Your task to perform on an android device: open chrome privacy settings Image 0: 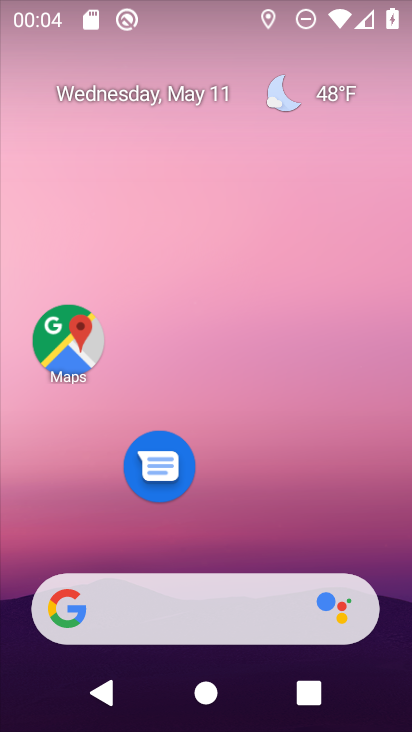
Step 0: drag from (260, 558) to (332, 43)
Your task to perform on an android device: open chrome privacy settings Image 1: 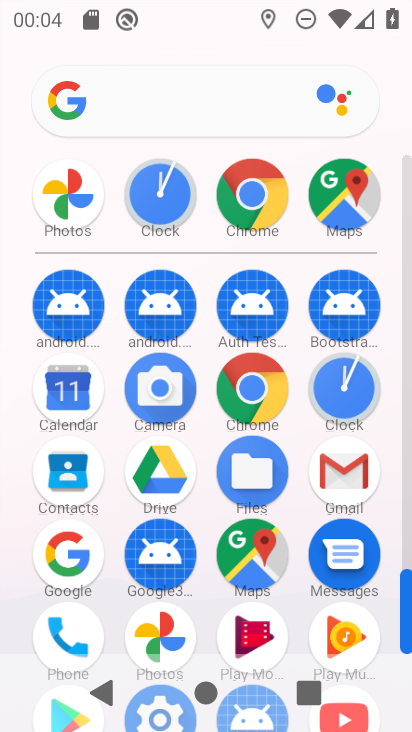
Step 1: click (233, 395)
Your task to perform on an android device: open chrome privacy settings Image 2: 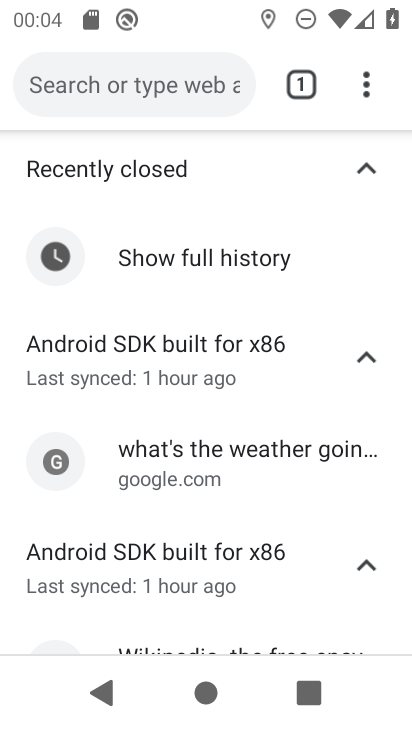
Step 2: click (365, 83)
Your task to perform on an android device: open chrome privacy settings Image 3: 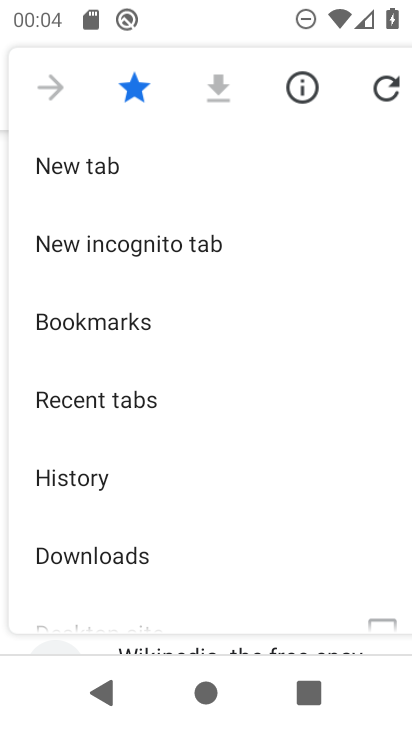
Step 3: drag from (181, 543) to (176, 479)
Your task to perform on an android device: open chrome privacy settings Image 4: 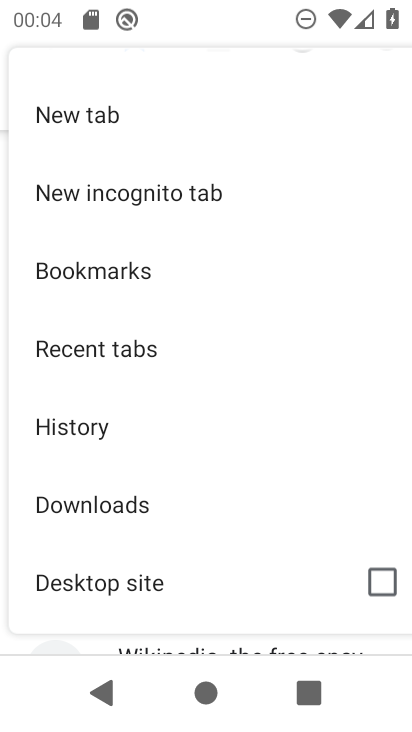
Step 4: drag from (206, 562) to (205, 439)
Your task to perform on an android device: open chrome privacy settings Image 5: 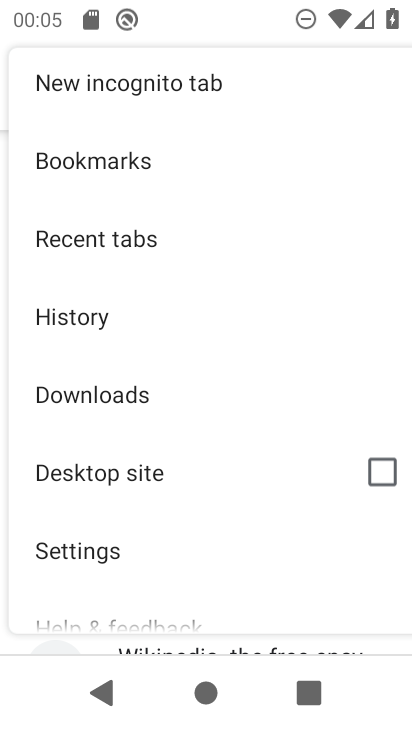
Step 5: drag from (179, 557) to (172, 471)
Your task to perform on an android device: open chrome privacy settings Image 6: 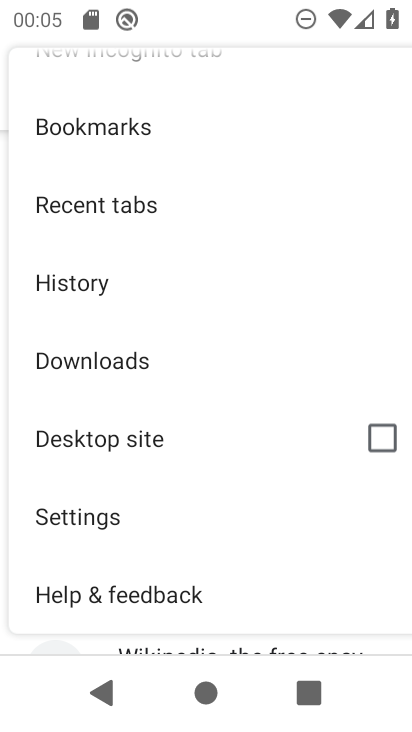
Step 6: click (146, 509)
Your task to perform on an android device: open chrome privacy settings Image 7: 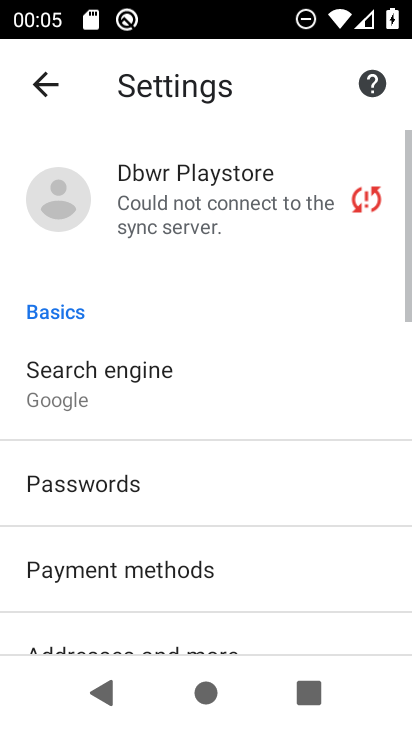
Step 7: drag from (146, 509) to (140, 456)
Your task to perform on an android device: open chrome privacy settings Image 8: 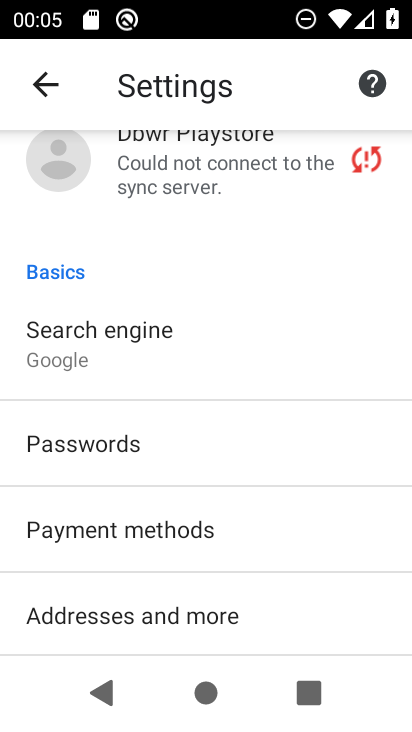
Step 8: drag from (140, 596) to (152, 440)
Your task to perform on an android device: open chrome privacy settings Image 9: 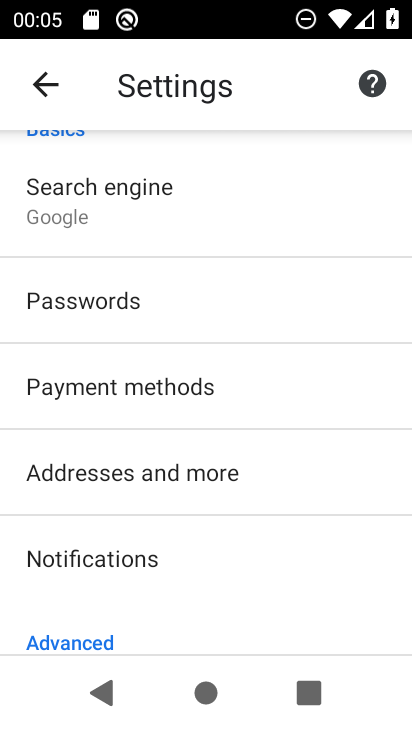
Step 9: drag from (145, 473) to (172, 240)
Your task to perform on an android device: open chrome privacy settings Image 10: 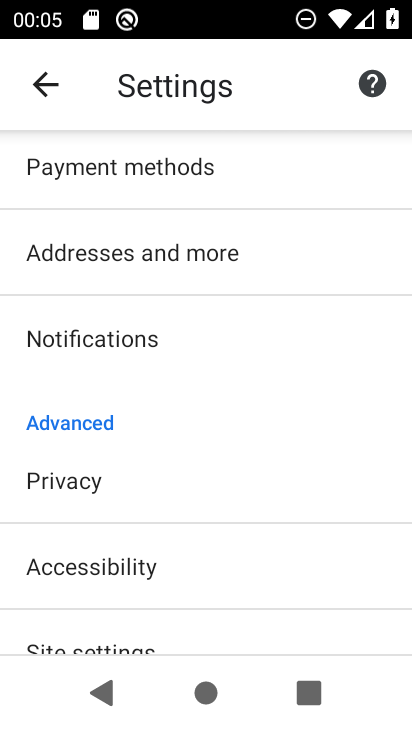
Step 10: click (192, 471)
Your task to perform on an android device: open chrome privacy settings Image 11: 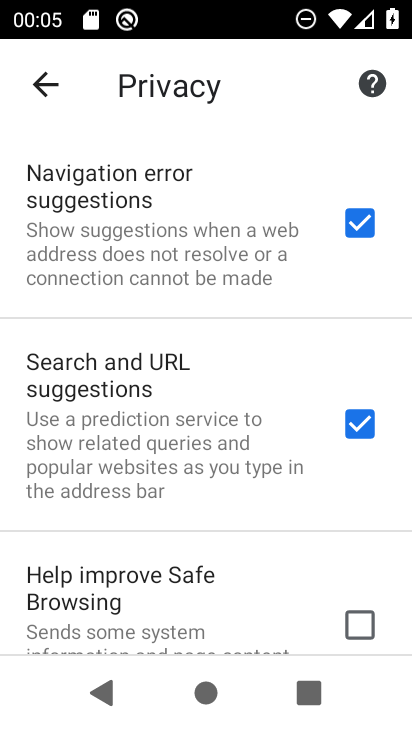
Step 11: task complete